Your task to perform on an android device: Go to notification settings Image 0: 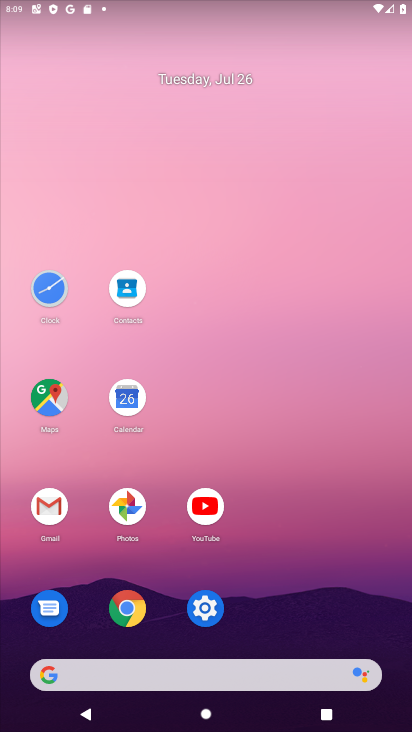
Step 0: click (205, 612)
Your task to perform on an android device: Go to notification settings Image 1: 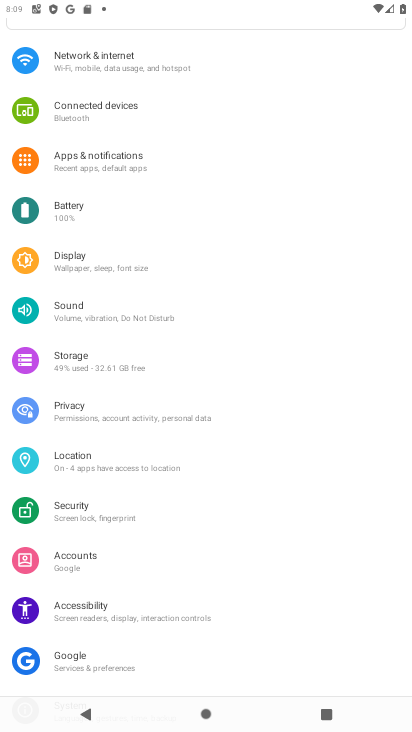
Step 1: click (92, 155)
Your task to perform on an android device: Go to notification settings Image 2: 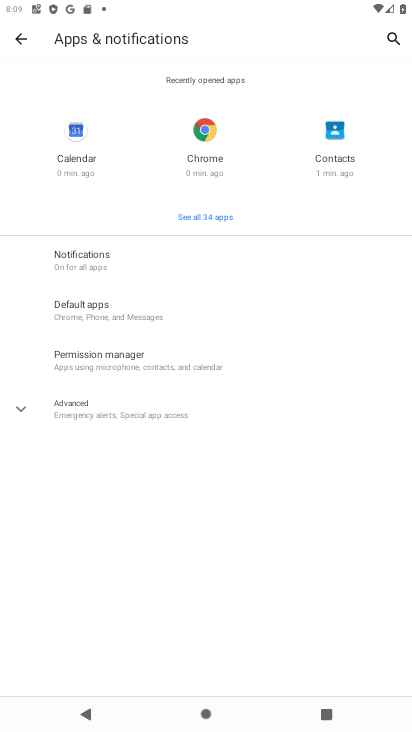
Step 2: click (84, 254)
Your task to perform on an android device: Go to notification settings Image 3: 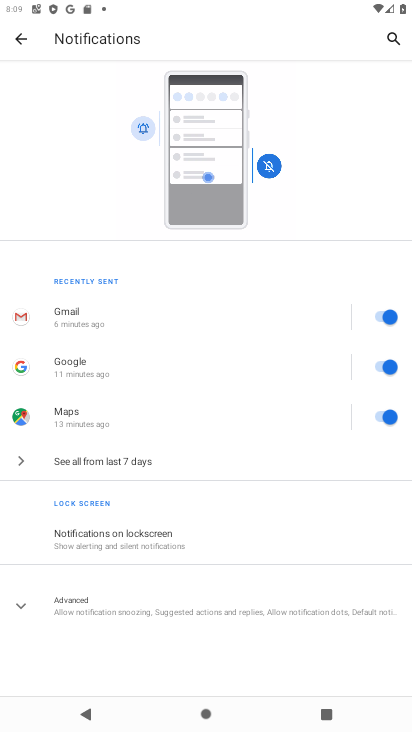
Step 3: task complete